Your task to perform on an android device: See recent photos Image 0: 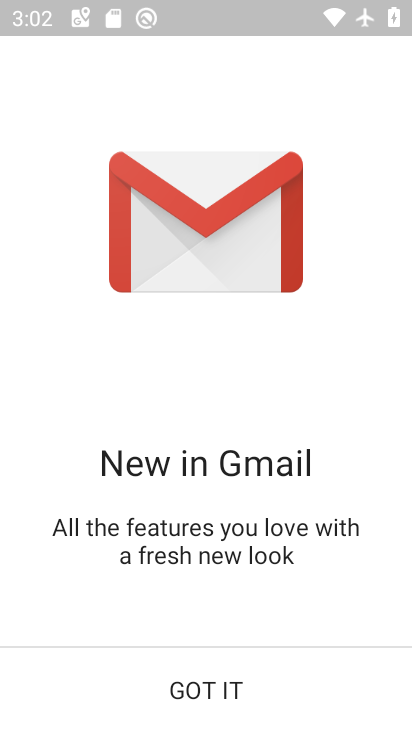
Step 0: click (196, 687)
Your task to perform on an android device: See recent photos Image 1: 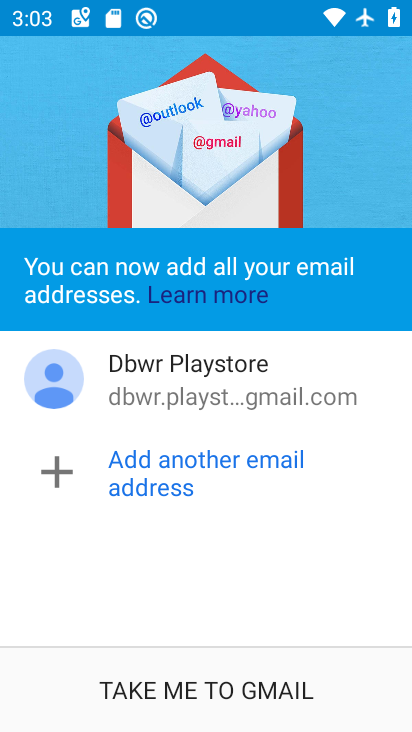
Step 1: press home button
Your task to perform on an android device: See recent photos Image 2: 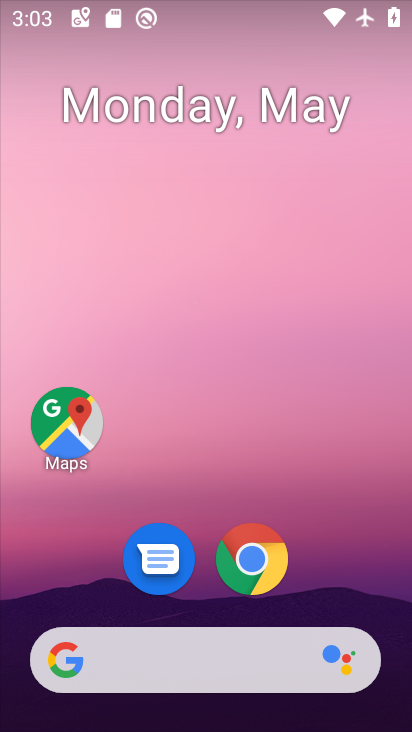
Step 2: drag from (295, 584) to (296, 135)
Your task to perform on an android device: See recent photos Image 3: 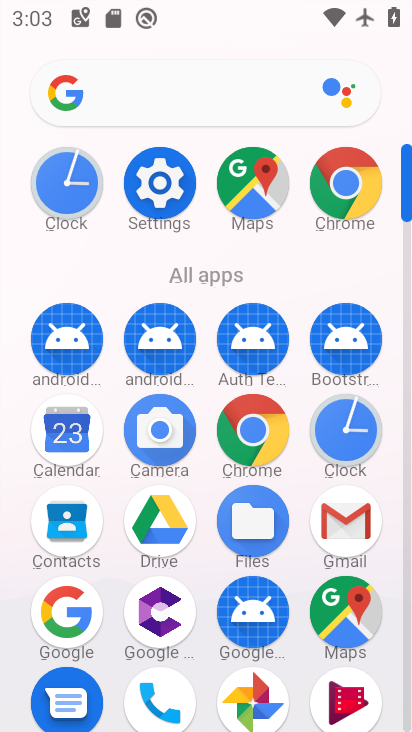
Step 3: click (241, 682)
Your task to perform on an android device: See recent photos Image 4: 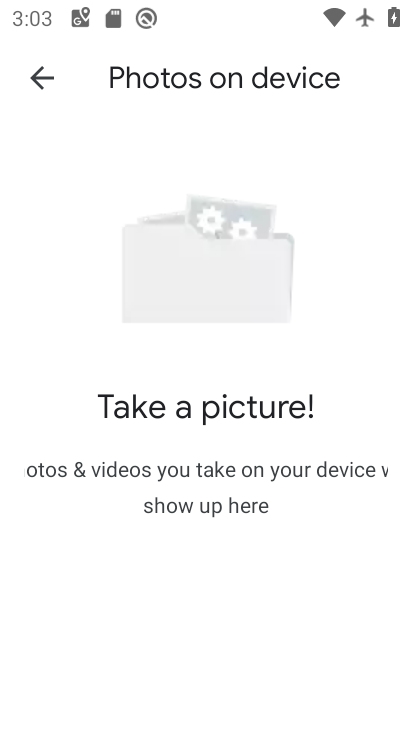
Step 4: click (40, 79)
Your task to perform on an android device: See recent photos Image 5: 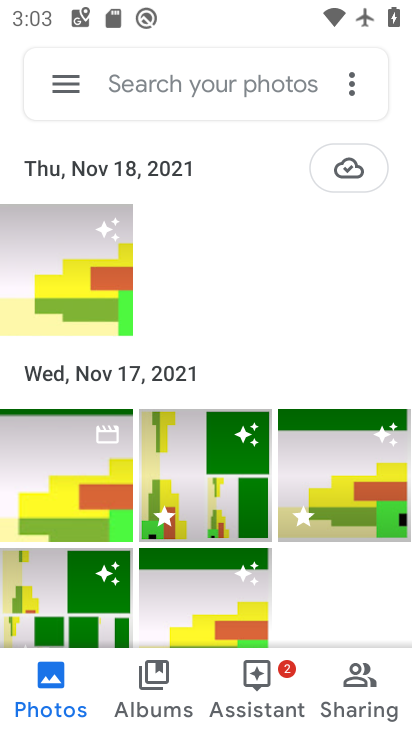
Step 5: task complete